Your task to perform on an android device: Go to Google Image 0: 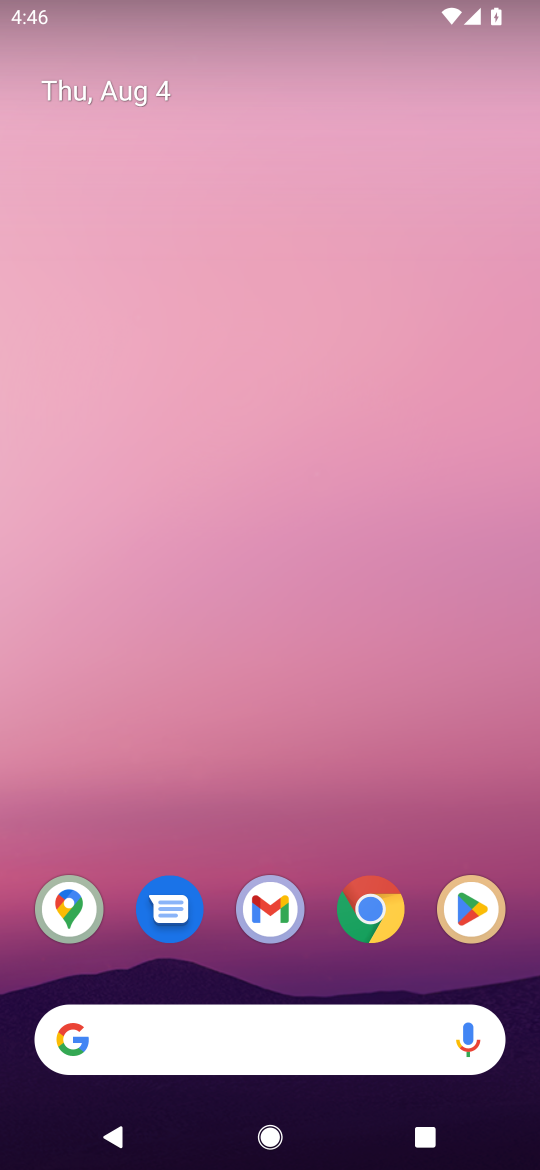
Step 0: press home button
Your task to perform on an android device: Go to Google Image 1: 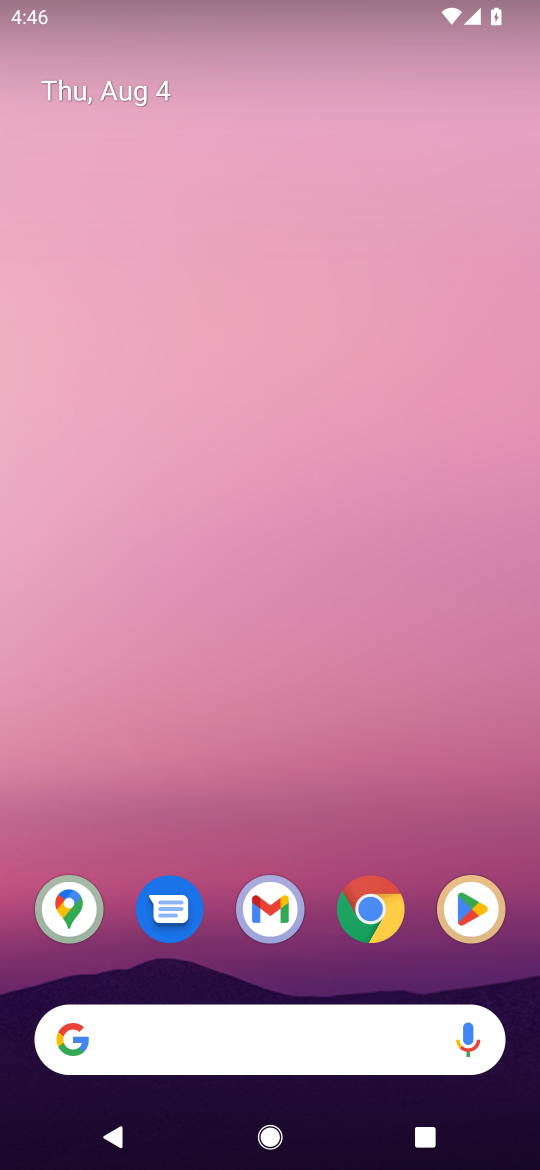
Step 1: drag from (258, 716) to (288, 50)
Your task to perform on an android device: Go to Google Image 2: 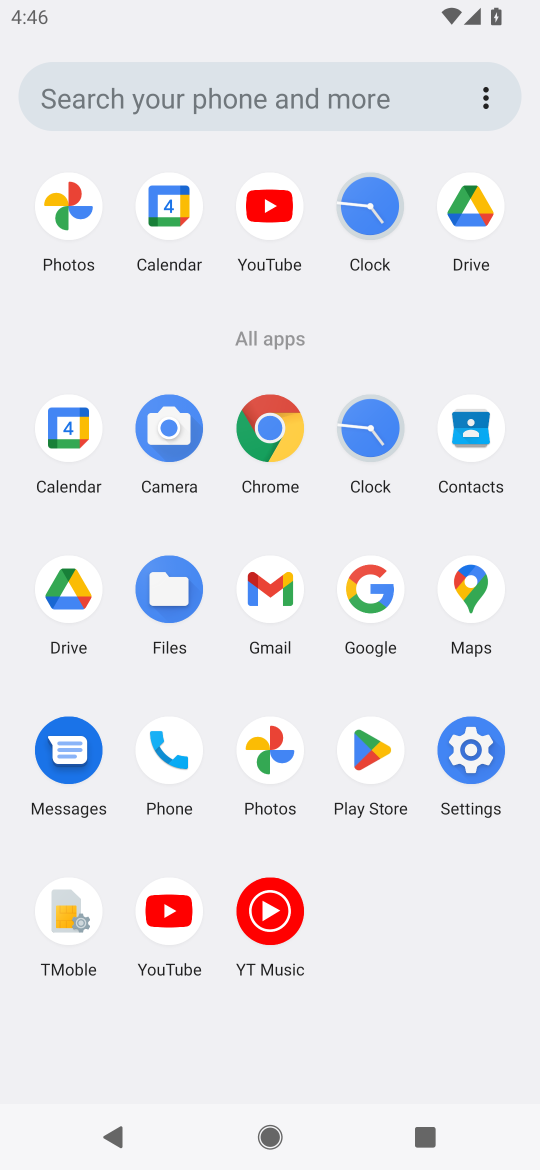
Step 2: click (377, 596)
Your task to perform on an android device: Go to Google Image 3: 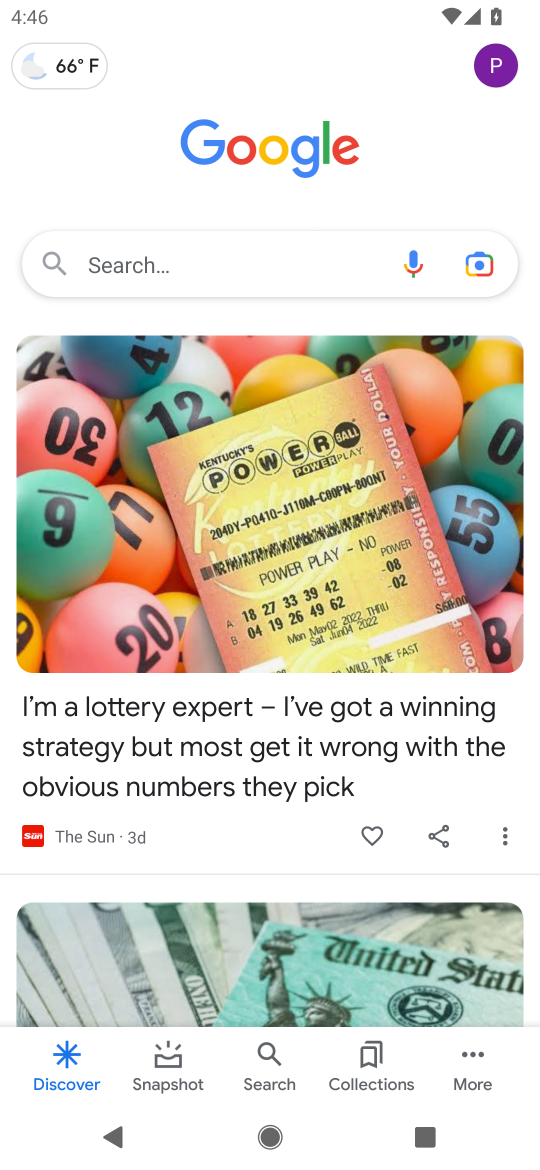
Step 3: task complete